Your task to perform on an android device: stop showing notifications on the lock screen Image 0: 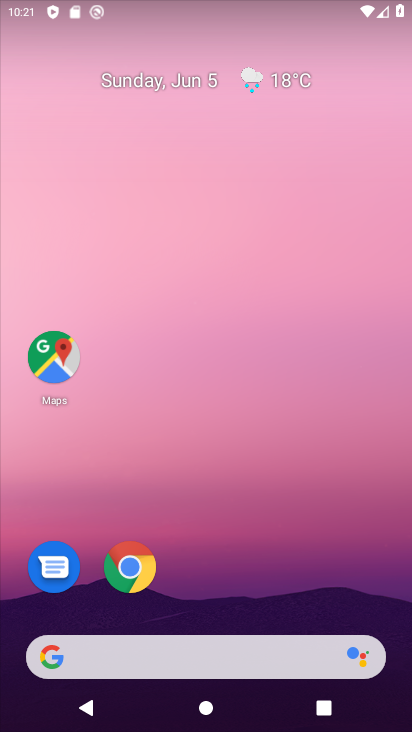
Step 0: drag from (208, 568) to (263, 104)
Your task to perform on an android device: stop showing notifications on the lock screen Image 1: 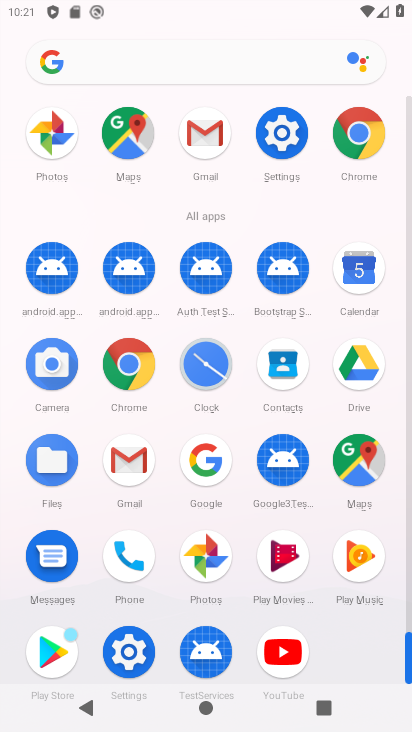
Step 1: click (270, 95)
Your task to perform on an android device: stop showing notifications on the lock screen Image 2: 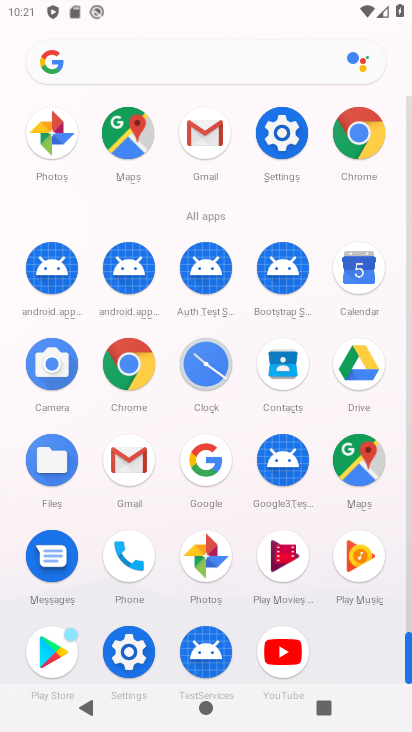
Step 2: click (282, 132)
Your task to perform on an android device: stop showing notifications on the lock screen Image 3: 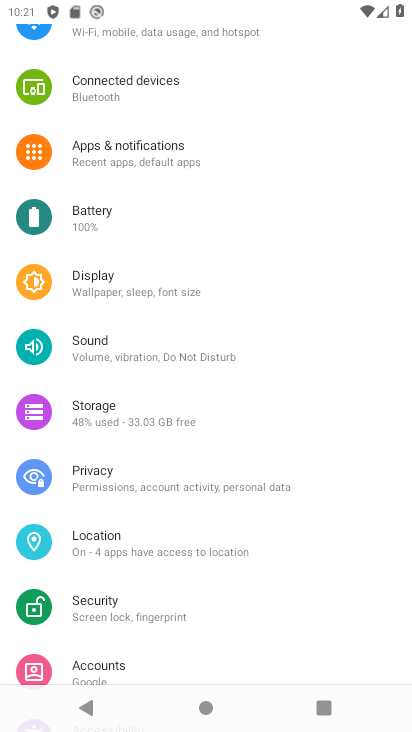
Step 3: click (142, 157)
Your task to perform on an android device: stop showing notifications on the lock screen Image 4: 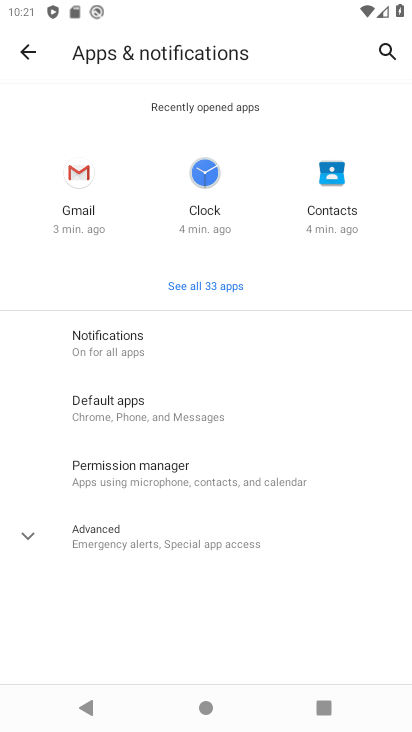
Step 4: click (85, 341)
Your task to perform on an android device: stop showing notifications on the lock screen Image 5: 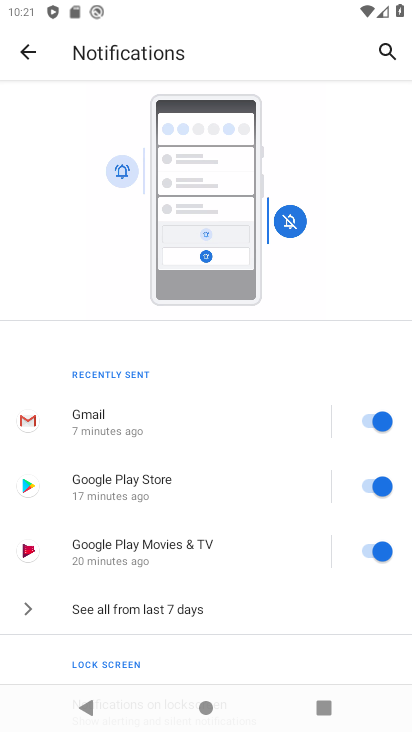
Step 5: drag from (119, 611) to (232, 37)
Your task to perform on an android device: stop showing notifications on the lock screen Image 6: 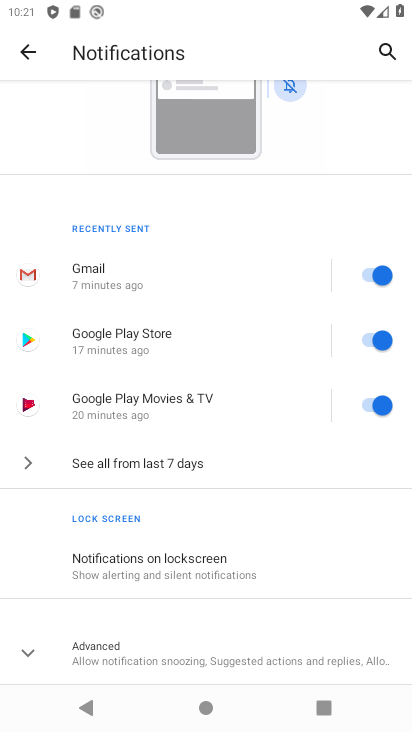
Step 6: click (182, 537)
Your task to perform on an android device: stop showing notifications on the lock screen Image 7: 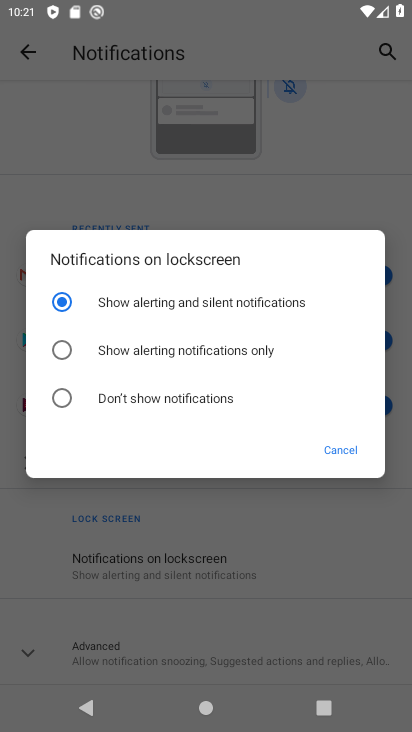
Step 7: click (160, 400)
Your task to perform on an android device: stop showing notifications on the lock screen Image 8: 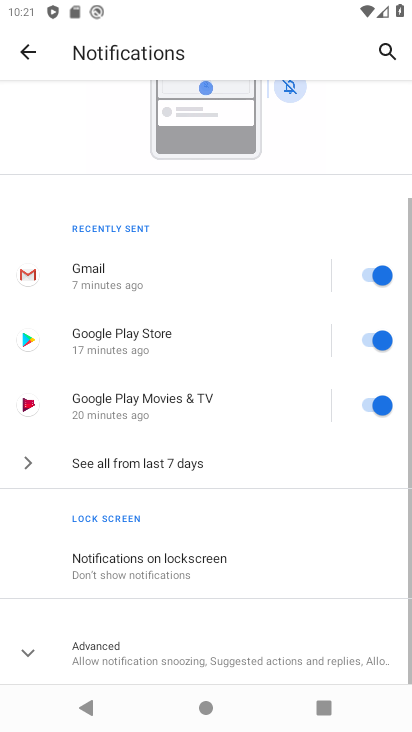
Step 8: task complete